Your task to perform on an android device: delete location history Image 0: 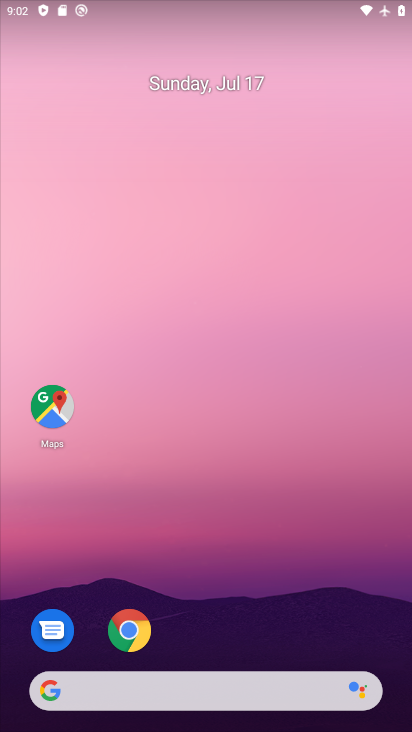
Step 0: drag from (327, 643) to (271, 267)
Your task to perform on an android device: delete location history Image 1: 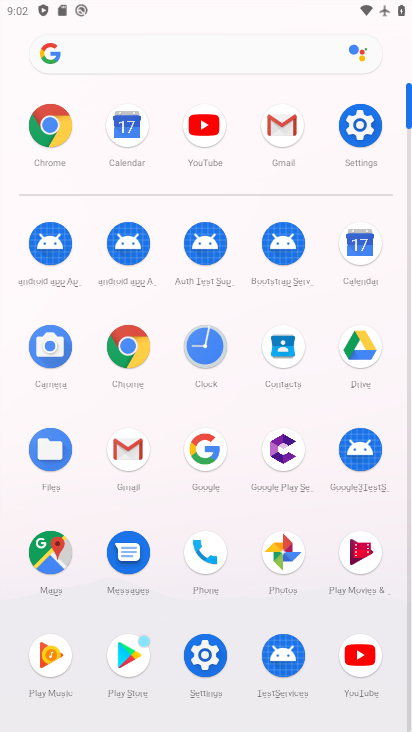
Step 1: click (347, 159)
Your task to perform on an android device: delete location history Image 2: 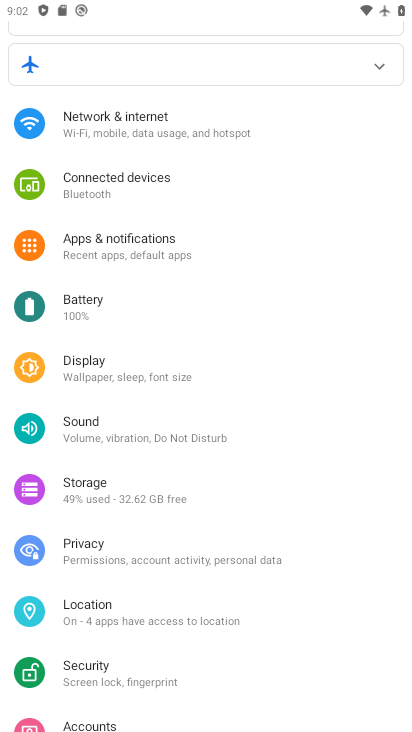
Step 2: click (155, 596)
Your task to perform on an android device: delete location history Image 3: 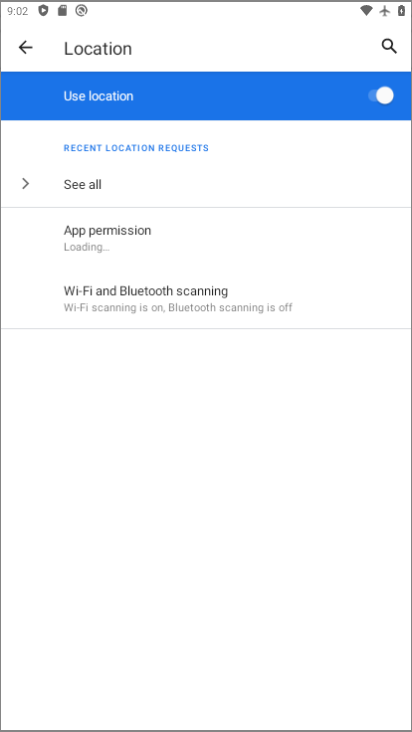
Step 3: task complete